Your task to perform on an android device: make emails show in primary in the gmail app Image 0: 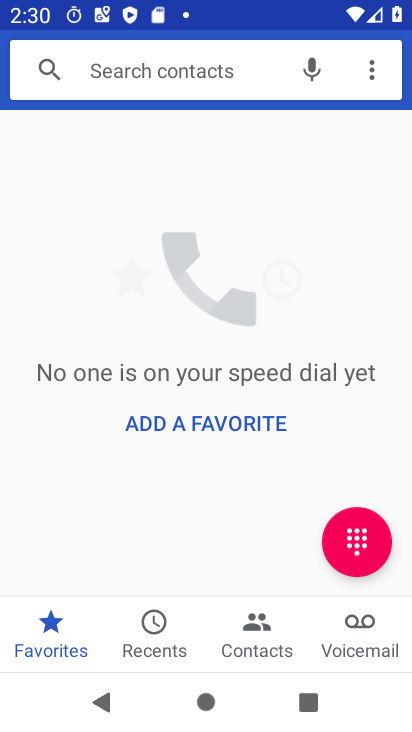
Step 0: press home button
Your task to perform on an android device: make emails show in primary in the gmail app Image 1: 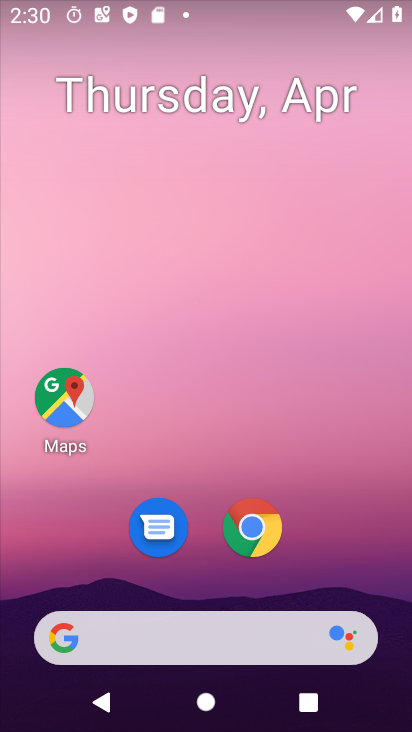
Step 1: drag from (326, 441) to (316, 176)
Your task to perform on an android device: make emails show in primary in the gmail app Image 2: 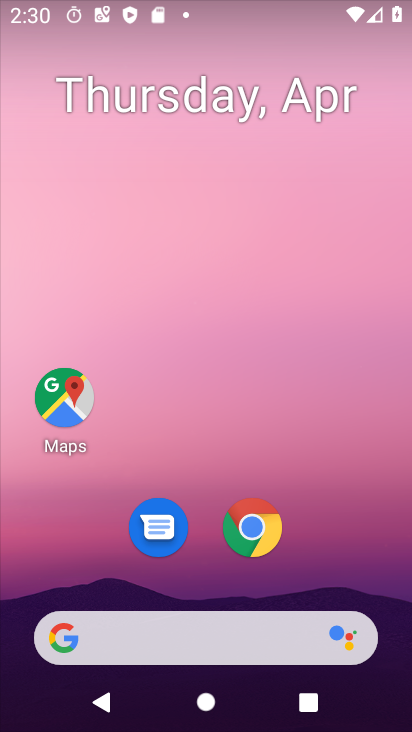
Step 2: drag from (315, 471) to (324, 98)
Your task to perform on an android device: make emails show in primary in the gmail app Image 3: 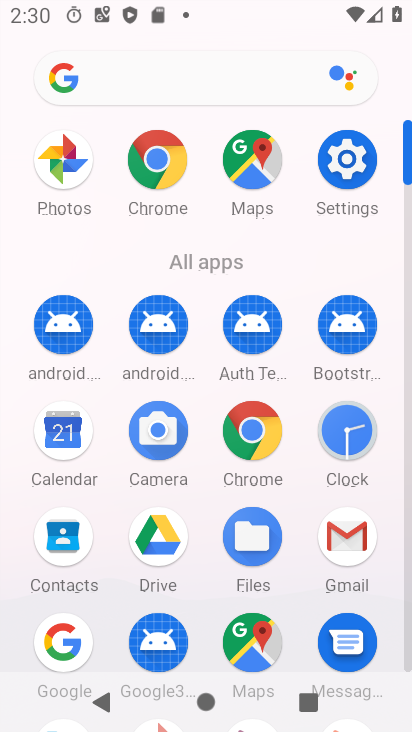
Step 3: click (360, 533)
Your task to perform on an android device: make emails show in primary in the gmail app Image 4: 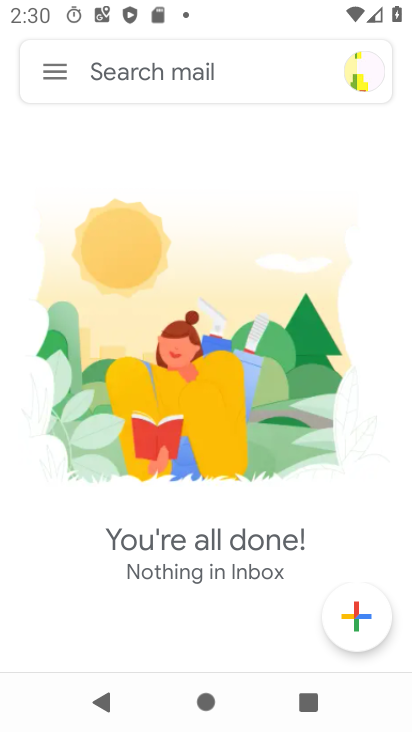
Step 4: click (53, 70)
Your task to perform on an android device: make emails show in primary in the gmail app Image 5: 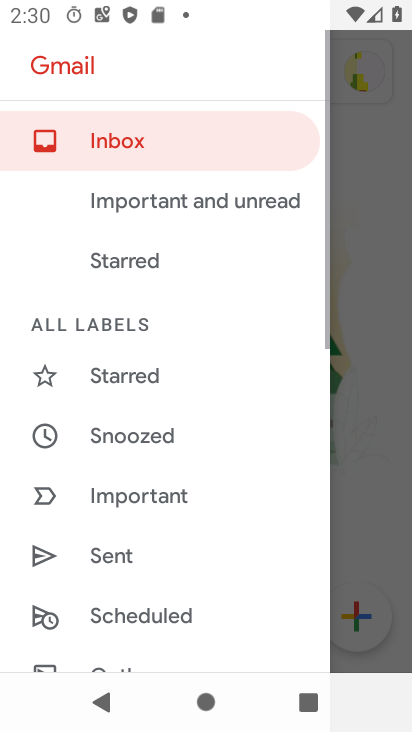
Step 5: drag from (128, 586) to (275, 80)
Your task to perform on an android device: make emails show in primary in the gmail app Image 6: 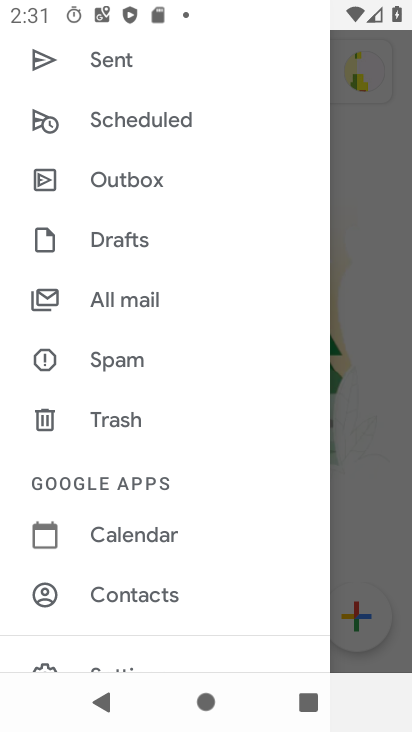
Step 6: drag from (136, 603) to (222, 293)
Your task to perform on an android device: make emails show in primary in the gmail app Image 7: 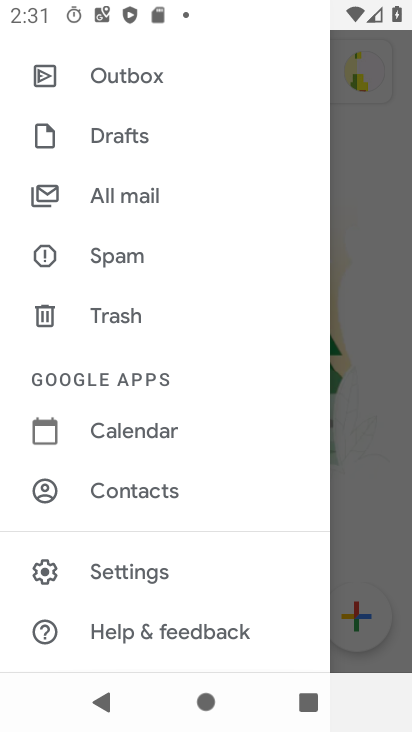
Step 7: click (101, 576)
Your task to perform on an android device: make emails show in primary in the gmail app Image 8: 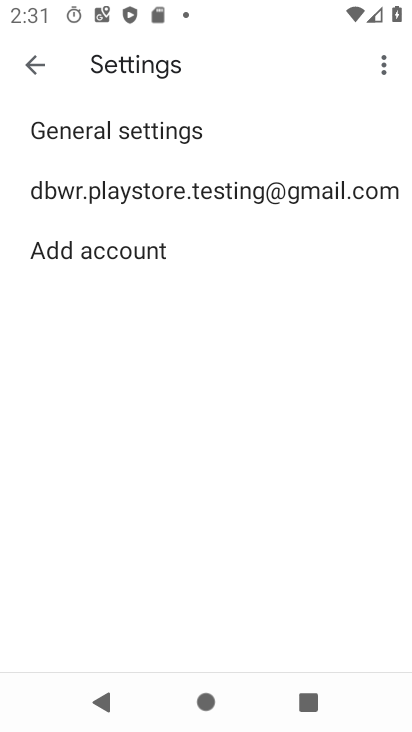
Step 8: click (133, 192)
Your task to perform on an android device: make emails show in primary in the gmail app Image 9: 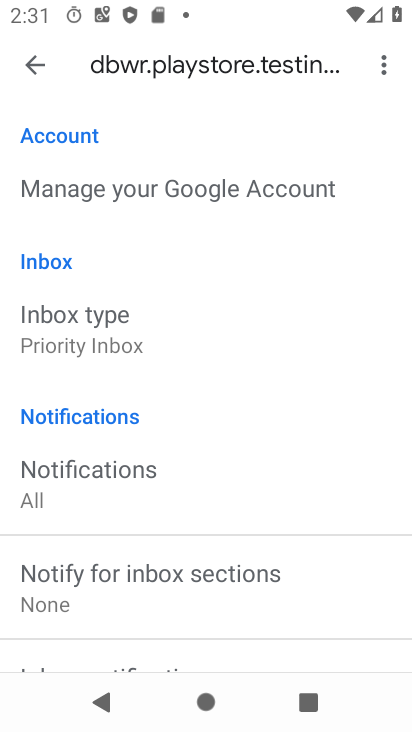
Step 9: click (83, 316)
Your task to perform on an android device: make emails show in primary in the gmail app Image 10: 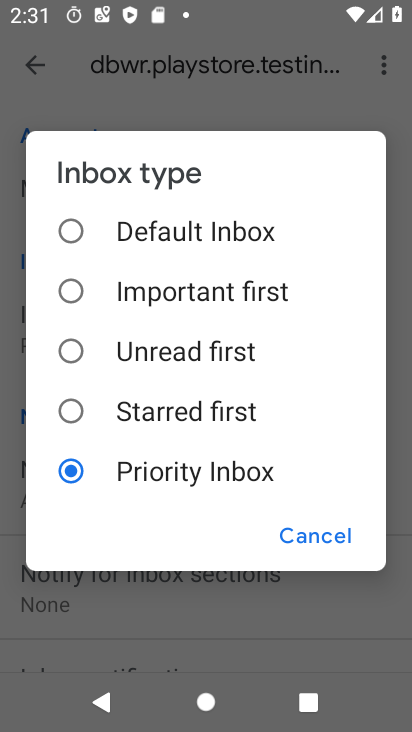
Step 10: click (111, 239)
Your task to perform on an android device: make emails show in primary in the gmail app Image 11: 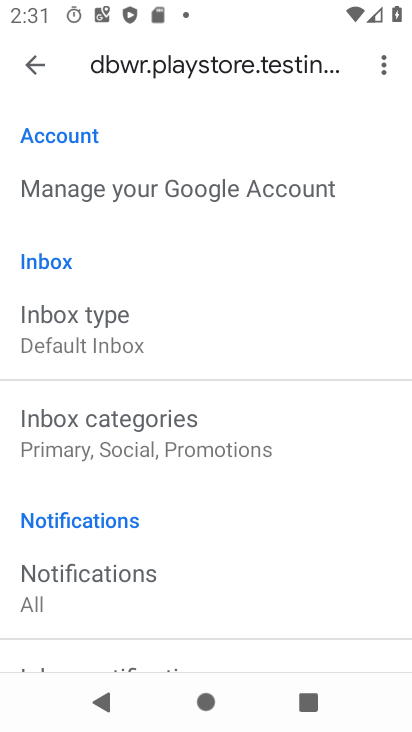
Step 11: click (200, 423)
Your task to perform on an android device: make emails show in primary in the gmail app Image 12: 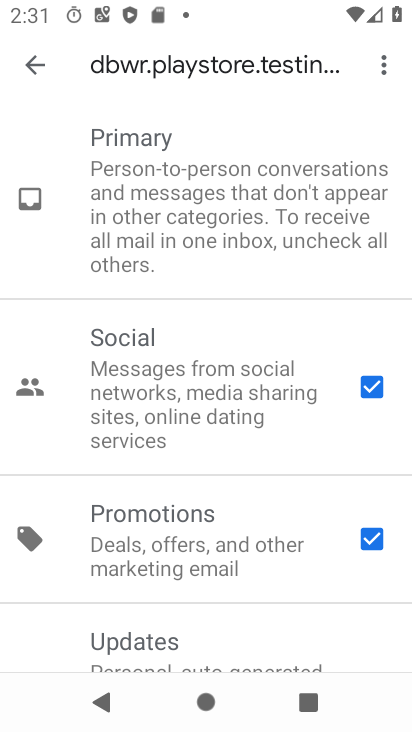
Step 12: task complete